Your task to perform on an android device: change notifications settings Image 0: 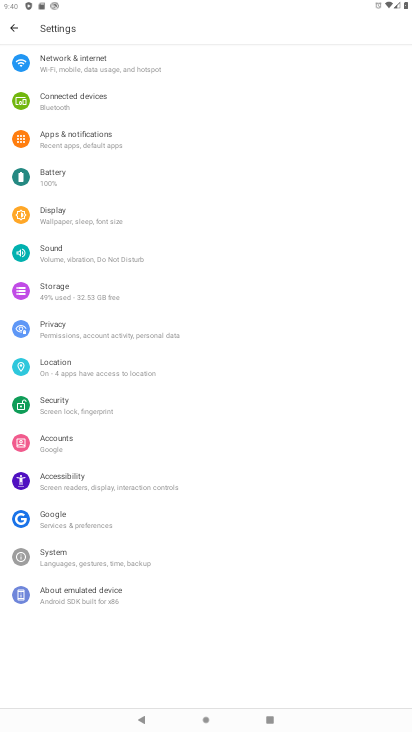
Step 0: click (127, 134)
Your task to perform on an android device: change notifications settings Image 1: 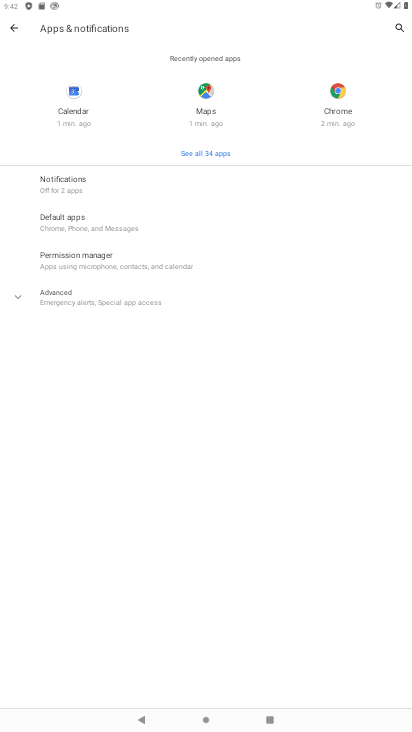
Step 1: click (179, 188)
Your task to perform on an android device: change notifications settings Image 2: 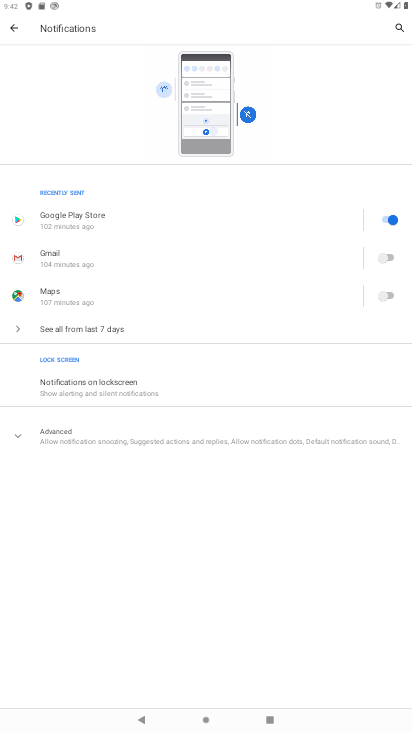
Step 2: click (387, 221)
Your task to perform on an android device: change notifications settings Image 3: 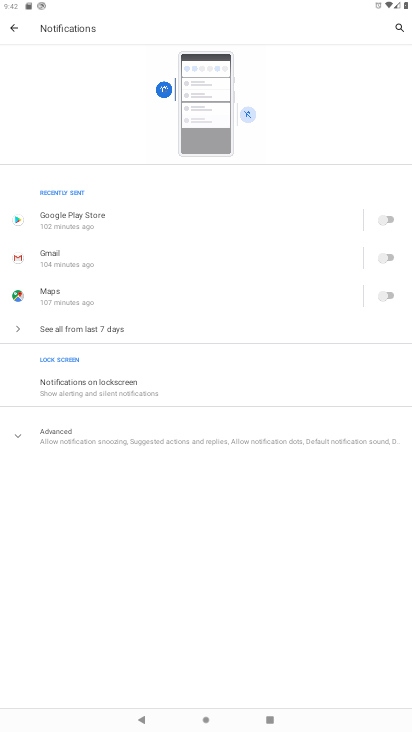
Step 3: task complete